Your task to perform on an android device: turn on priority inbox in the gmail app Image 0: 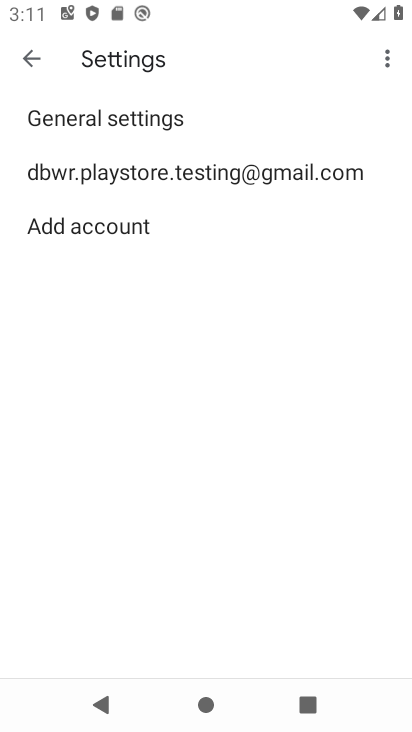
Step 0: press home button
Your task to perform on an android device: turn on priority inbox in the gmail app Image 1: 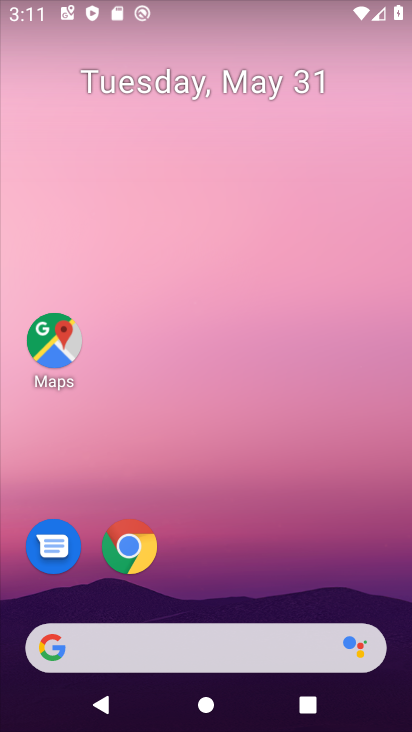
Step 1: drag from (233, 523) to (179, 40)
Your task to perform on an android device: turn on priority inbox in the gmail app Image 2: 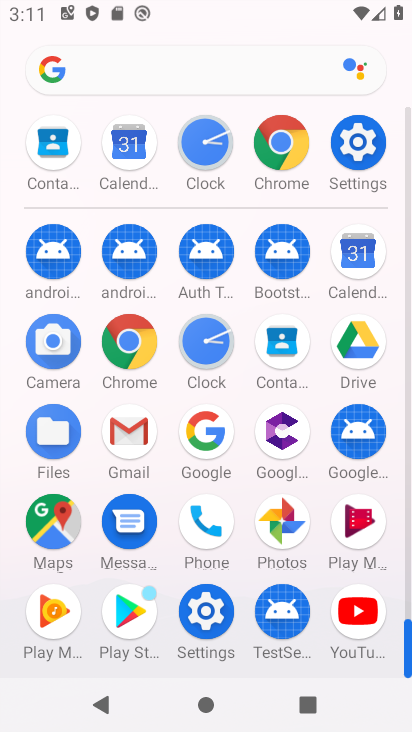
Step 2: click (140, 433)
Your task to perform on an android device: turn on priority inbox in the gmail app Image 3: 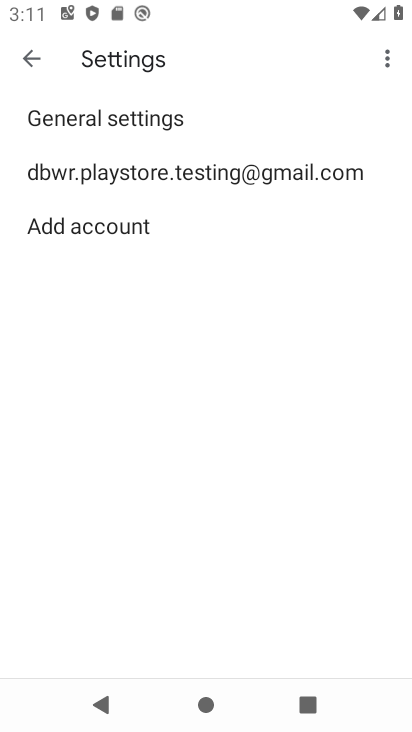
Step 3: click (157, 170)
Your task to perform on an android device: turn on priority inbox in the gmail app Image 4: 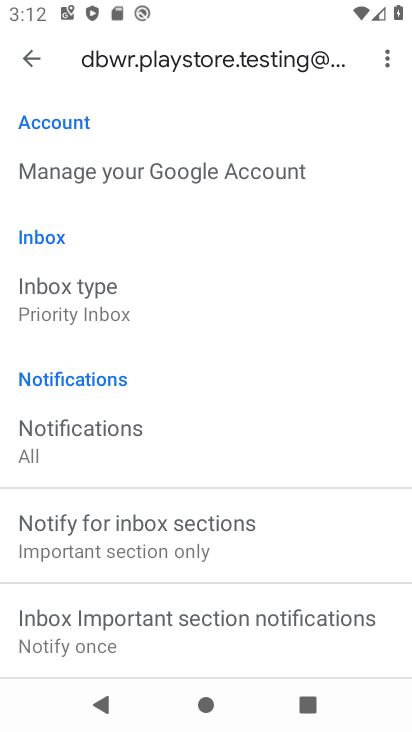
Step 4: task complete